Your task to perform on an android device: see sites visited before in the chrome app Image 0: 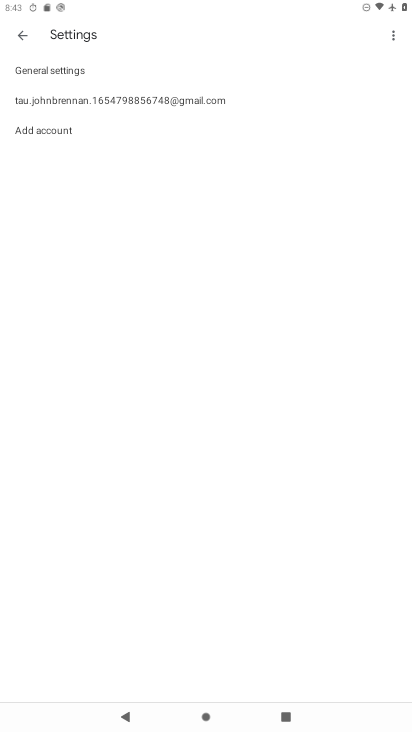
Step 0: press home button
Your task to perform on an android device: see sites visited before in the chrome app Image 1: 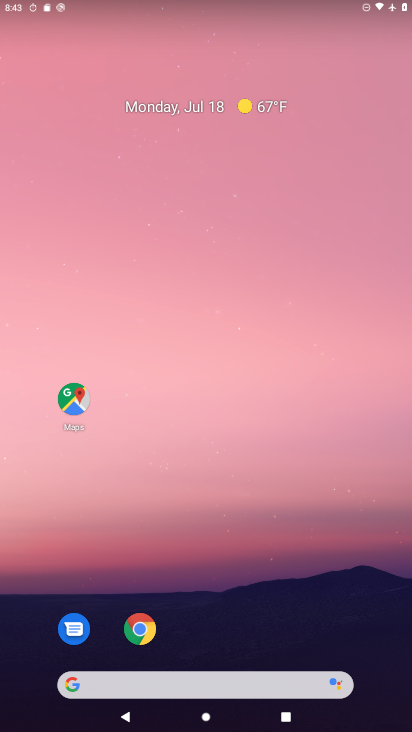
Step 1: drag from (199, 647) to (161, 44)
Your task to perform on an android device: see sites visited before in the chrome app Image 2: 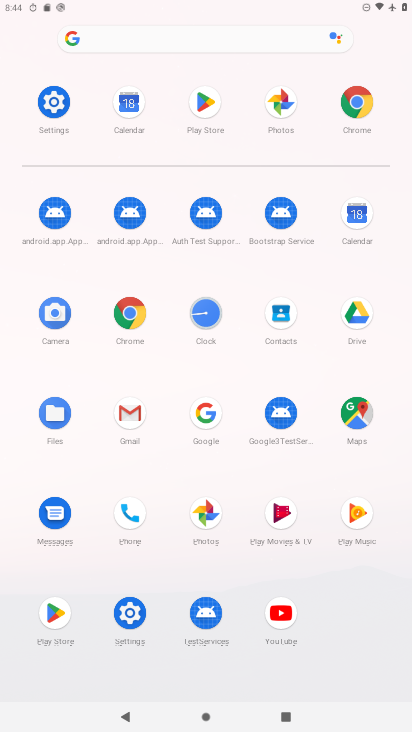
Step 2: click (133, 313)
Your task to perform on an android device: see sites visited before in the chrome app Image 3: 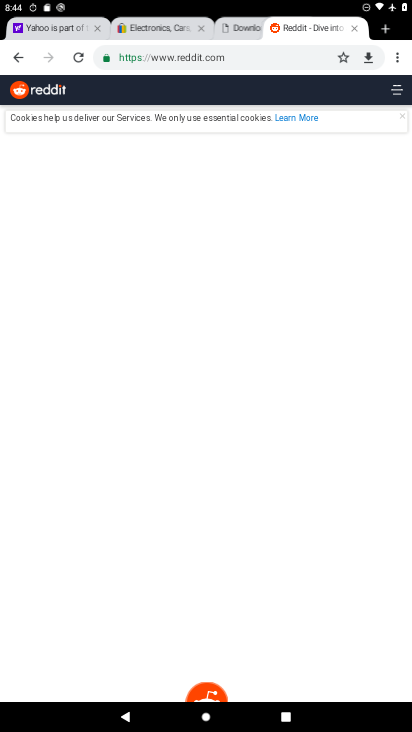
Step 3: click (240, 19)
Your task to perform on an android device: see sites visited before in the chrome app Image 4: 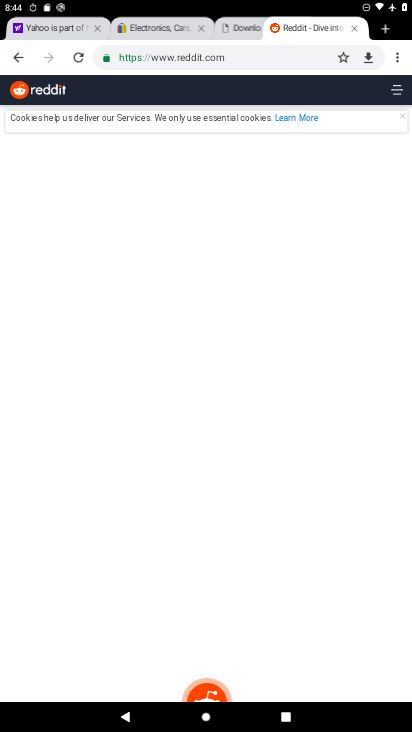
Step 4: click (151, 38)
Your task to perform on an android device: see sites visited before in the chrome app Image 5: 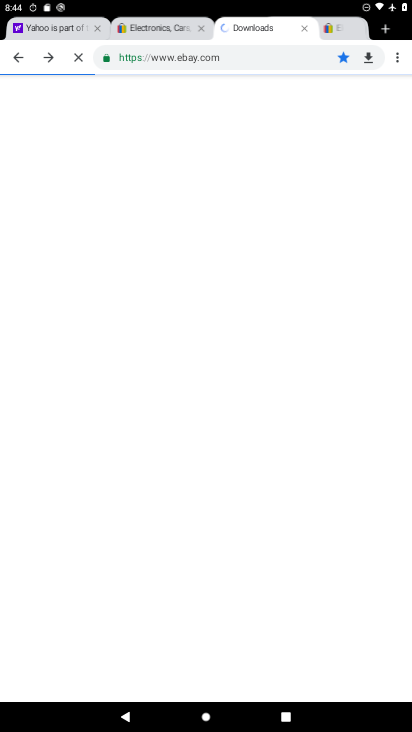
Step 5: click (77, 30)
Your task to perform on an android device: see sites visited before in the chrome app Image 6: 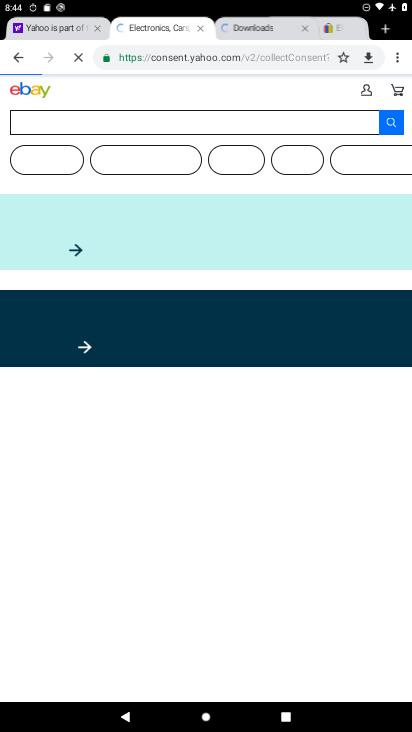
Step 6: task complete